Your task to perform on an android device: Show me popular games on the Play Store Image 0: 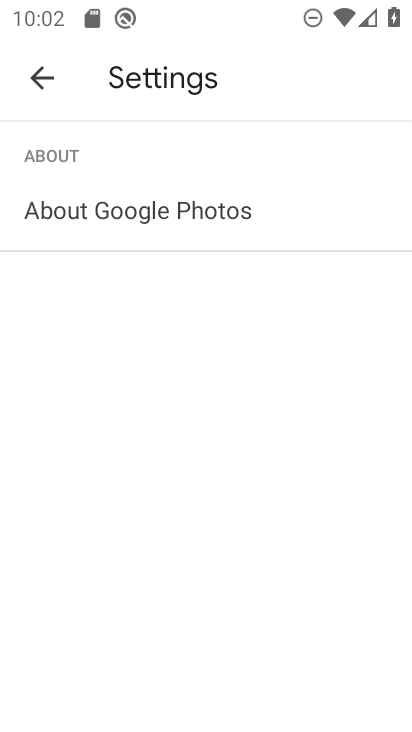
Step 0: press home button
Your task to perform on an android device: Show me popular games on the Play Store Image 1: 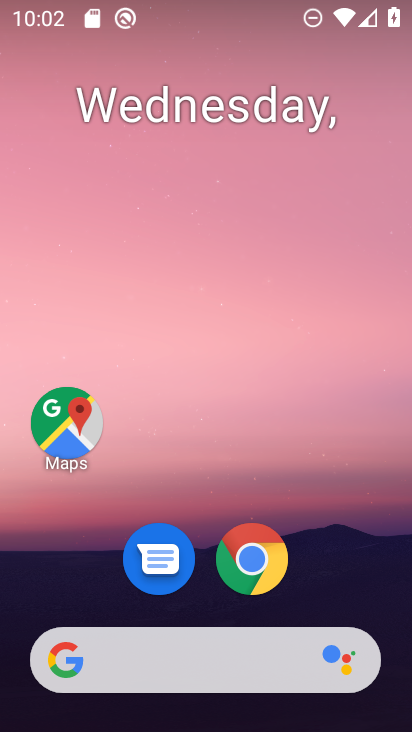
Step 1: drag from (333, 537) to (382, 97)
Your task to perform on an android device: Show me popular games on the Play Store Image 2: 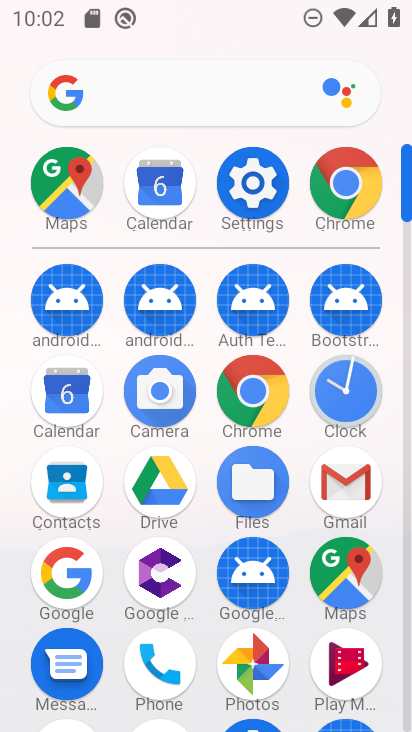
Step 2: drag from (398, 575) to (405, 332)
Your task to perform on an android device: Show me popular games on the Play Store Image 3: 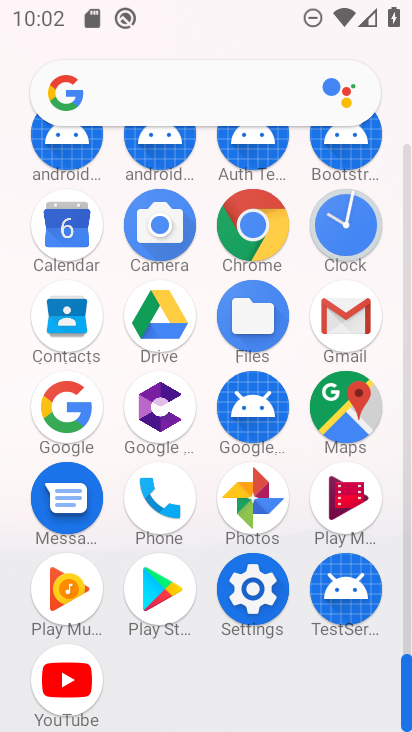
Step 3: click (176, 585)
Your task to perform on an android device: Show me popular games on the Play Store Image 4: 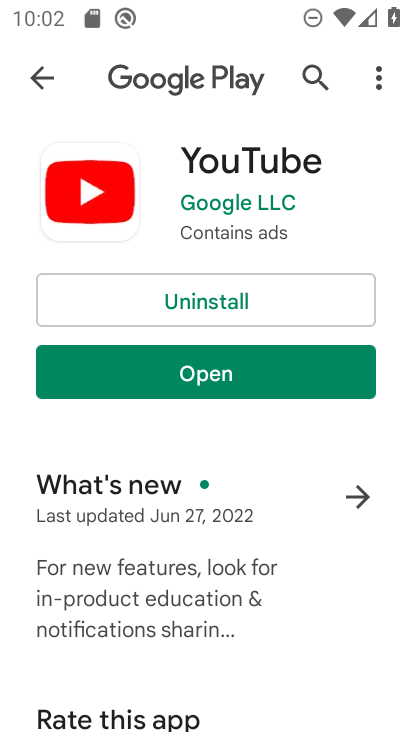
Step 4: press back button
Your task to perform on an android device: Show me popular games on the Play Store Image 5: 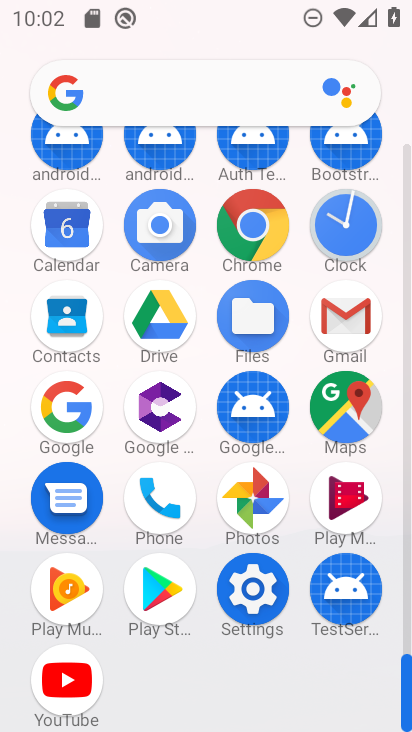
Step 5: click (171, 587)
Your task to perform on an android device: Show me popular games on the Play Store Image 6: 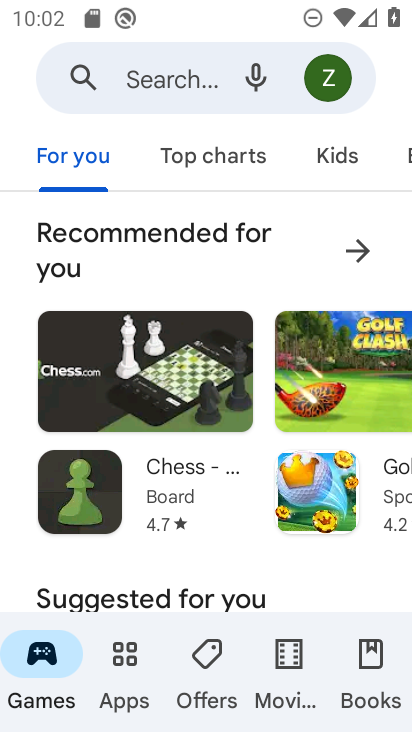
Step 6: task complete